Your task to perform on an android device: open app "PUBG MOBILE" Image 0: 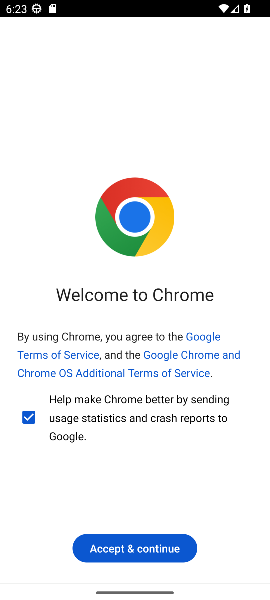
Step 0: press home button
Your task to perform on an android device: open app "PUBG MOBILE" Image 1: 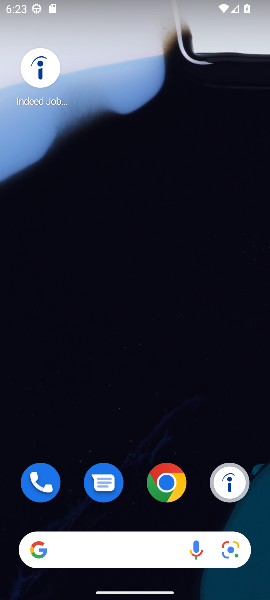
Step 1: drag from (136, 433) to (256, 10)
Your task to perform on an android device: open app "PUBG MOBILE" Image 2: 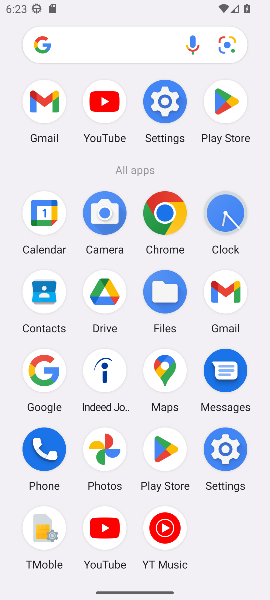
Step 2: click (233, 88)
Your task to perform on an android device: open app "PUBG MOBILE" Image 3: 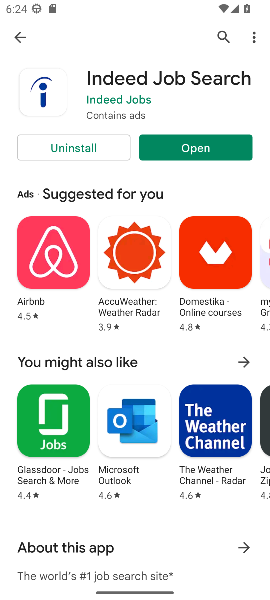
Step 3: click (219, 38)
Your task to perform on an android device: open app "PUBG MOBILE" Image 4: 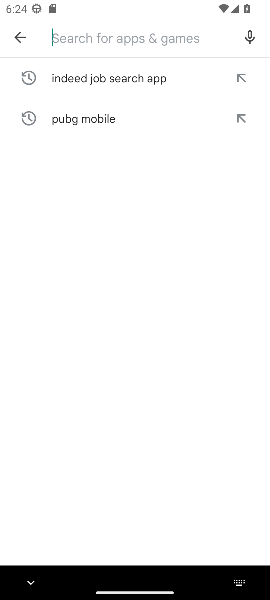
Step 4: type "pubg mobile"
Your task to perform on an android device: open app "PUBG MOBILE" Image 5: 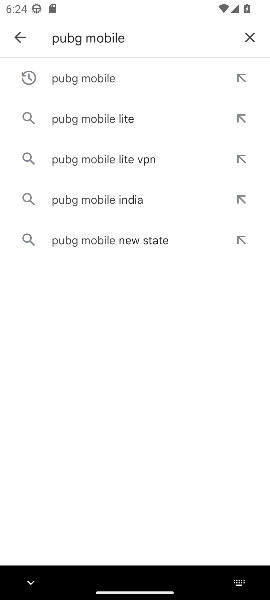
Step 5: click (158, 71)
Your task to perform on an android device: open app "PUBG MOBILE" Image 6: 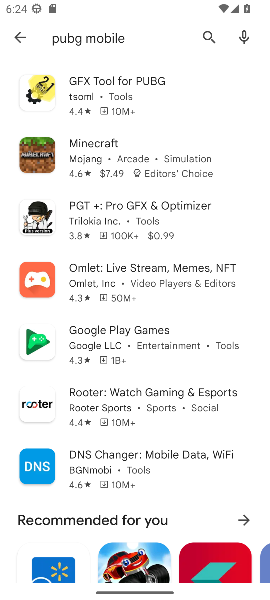
Step 6: task complete